Your task to perform on an android device: What's the weather? Image 0: 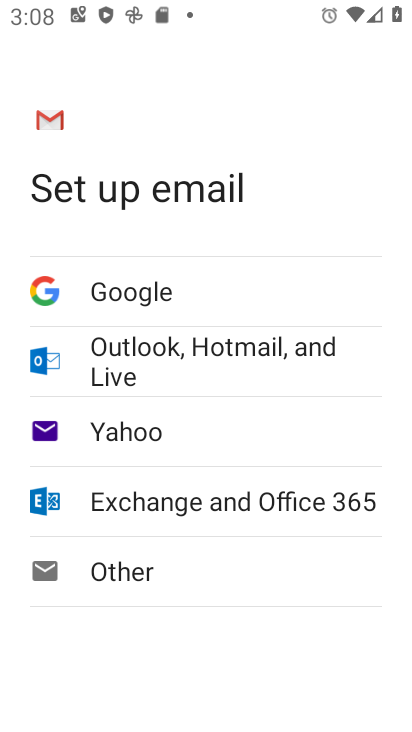
Step 0: press home button
Your task to perform on an android device: What's the weather? Image 1: 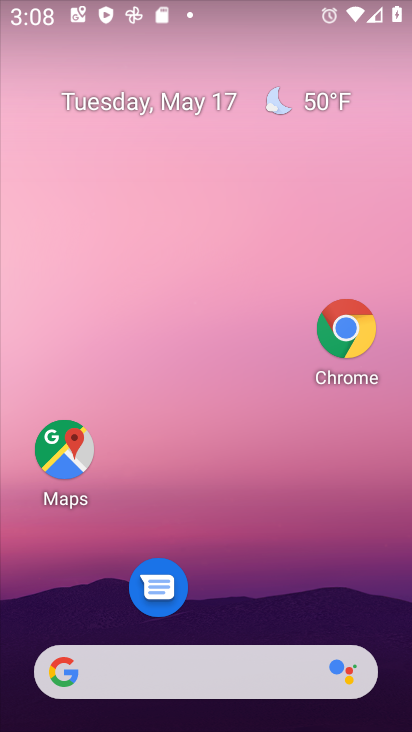
Step 1: click (299, 682)
Your task to perform on an android device: What's the weather? Image 2: 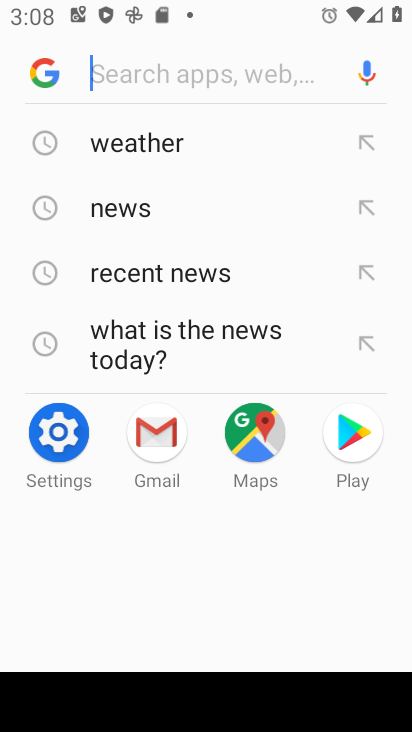
Step 2: click (163, 145)
Your task to perform on an android device: What's the weather? Image 3: 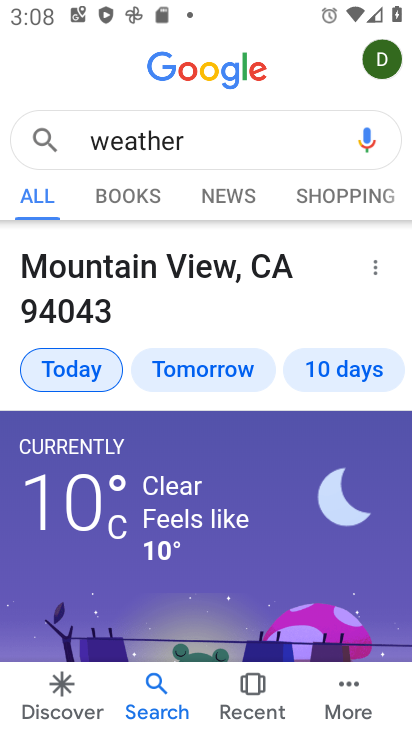
Step 3: task complete